Your task to perform on an android device: find photos in the google photos app Image 0: 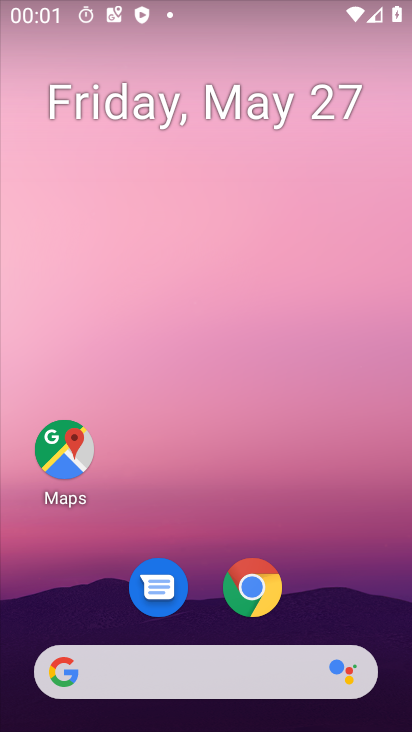
Step 0: drag from (340, 637) to (394, 13)
Your task to perform on an android device: find photos in the google photos app Image 1: 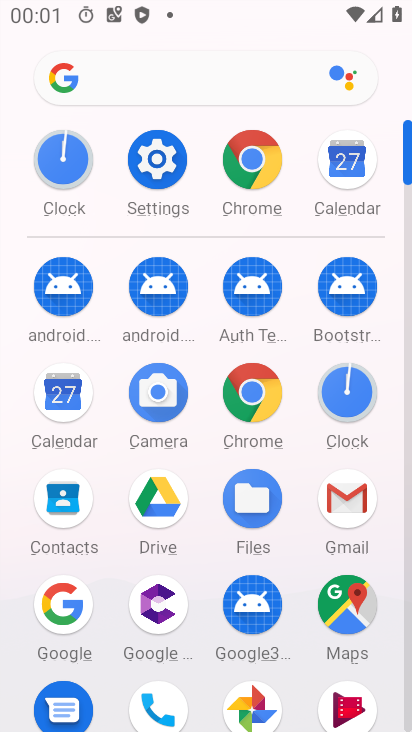
Step 1: click (248, 703)
Your task to perform on an android device: find photos in the google photos app Image 2: 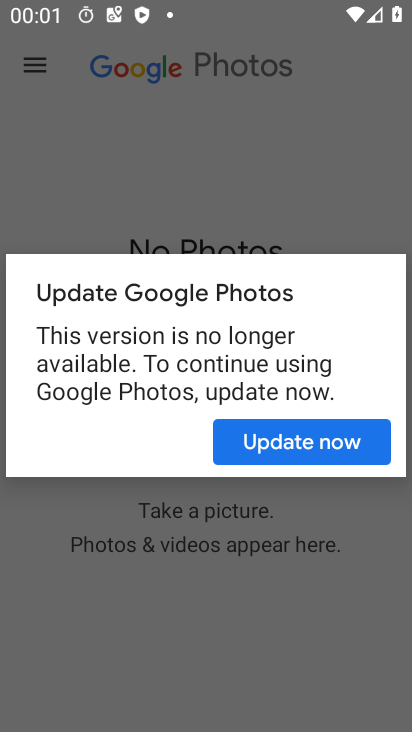
Step 2: click (296, 443)
Your task to perform on an android device: find photos in the google photos app Image 3: 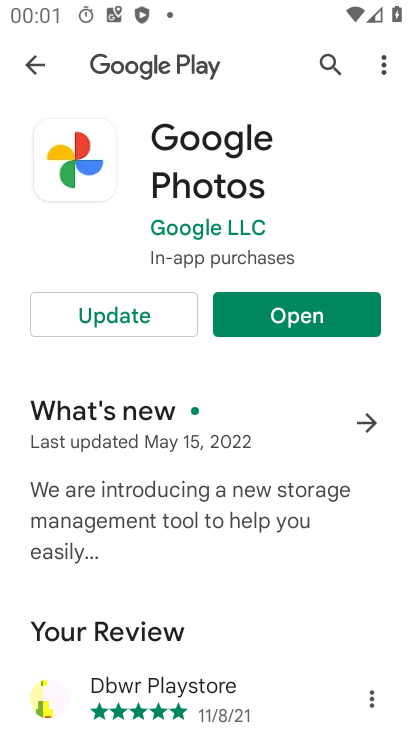
Step 3: click (247, 327)
Your task to perform on an android device: find photos in the google photos app Image 4: 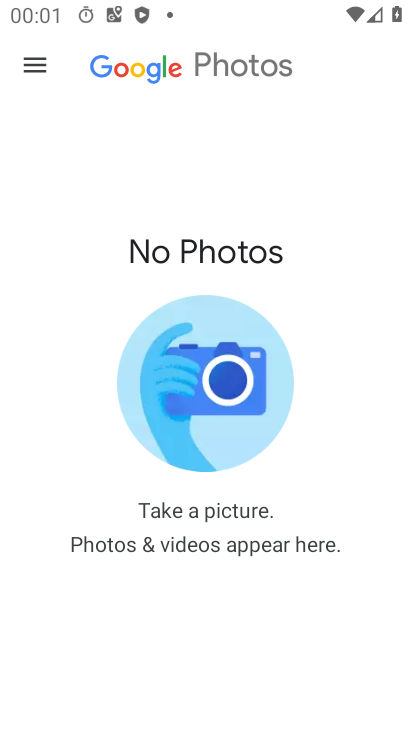
Step 4: press back button
Your task to perform on an android device: find photos in the google photos app Image 5: 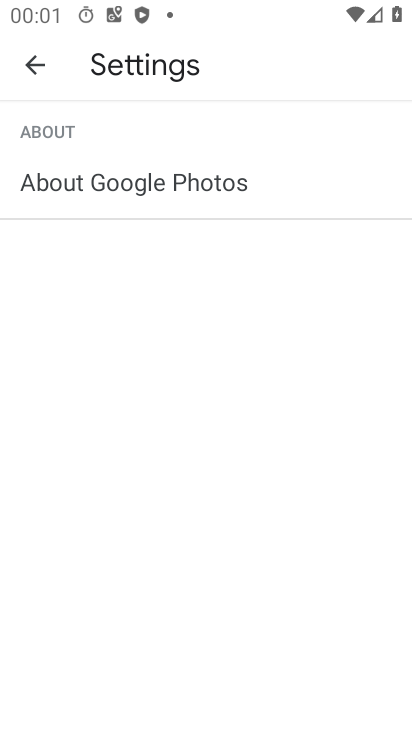
Step 5: press back button
Your task to perform on an android device: find photos in the google photos app Image 6: 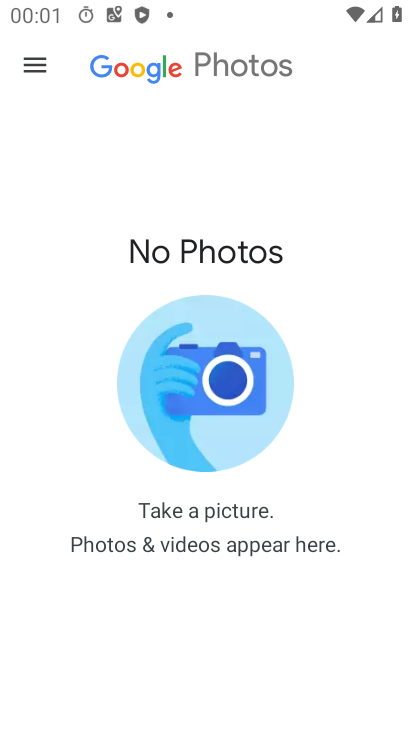
Step 6: click (29, 73)
Your task to perform on an android device: find photos in the google photos app Image 7: 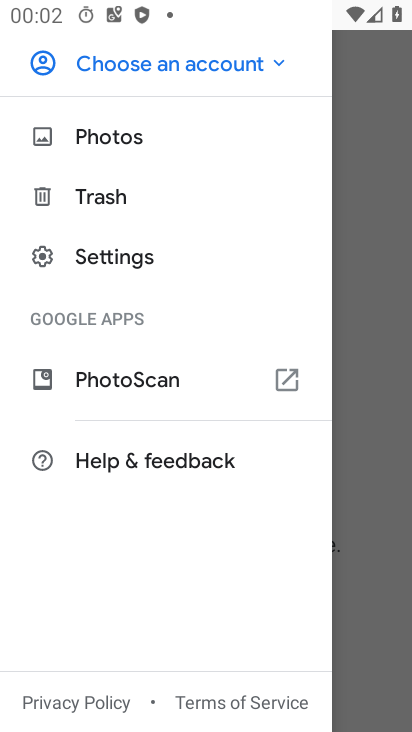
Step 7: task complete